Your task to perform on an android device: open app "Google Play services" (install if not already installed) Image 0: 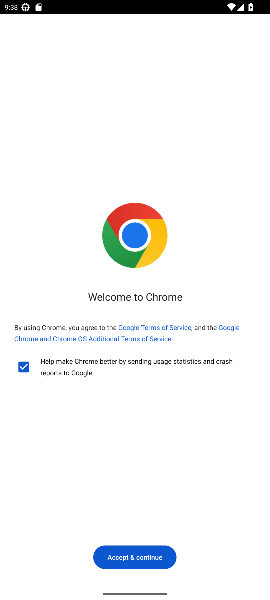
Step 0: press home button
Your task to perform on an android device: open app "Google Play services" (install if not already installed) Image 1: 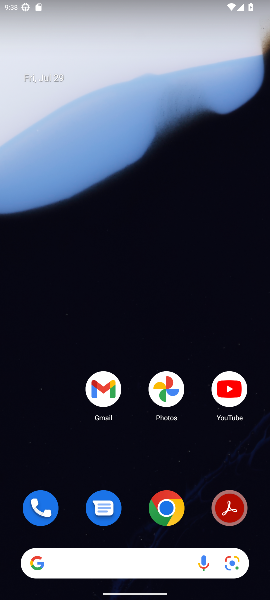
Step 1: drag from (61, 545) to (152, 142)
Your task to perform on an android device: open app "Google Play services" (install if not already installed) Image 2: 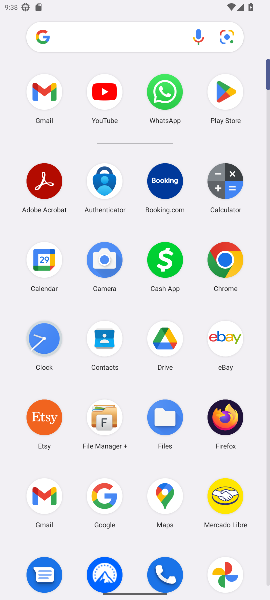
Step 2: click (225, 87)
Your task to perform on an android device: open app "Google Play services" (install if not already installed) Image 3: 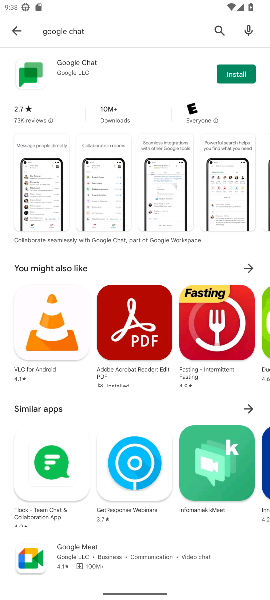
Step 3: click (218, 26)
Your task to perform on an android device: open app "Google Play services" (install if not already installed) Image 4: 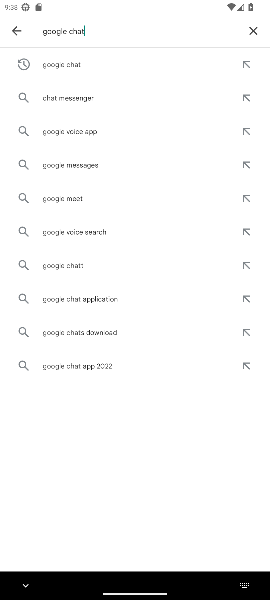
Step 4: click (258, 29)
Your task to perform on an android device: open app "Google Play services" (install if not already installed) Image 5: 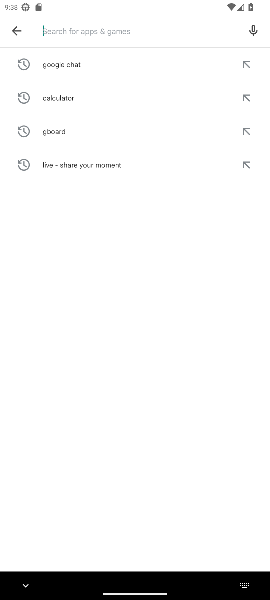
Step 5: type "Google play services"
Your task to perform on an android device: open app "Google Play services" (install if not already installed) Image 6: 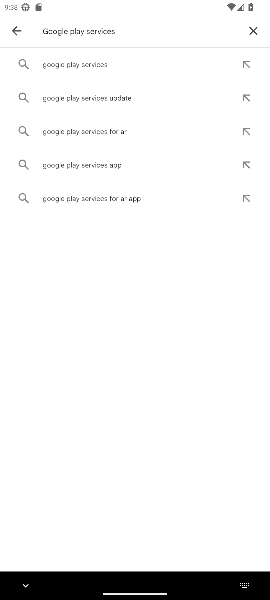
Step 6: click (93, 54)
Your task to perform on an android device: open app "Google Play services" (install if not already installed) Image 7: 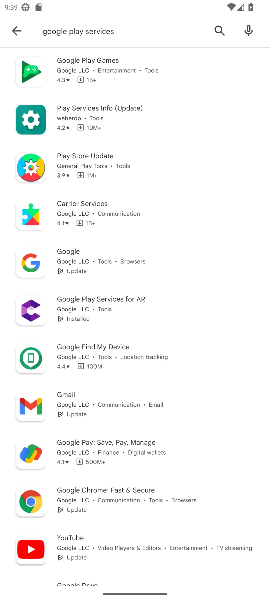
Step 7: click (89, 65)
Your task to perform on an android device: open app "Google Play services" (install if not already installed) Image 8: 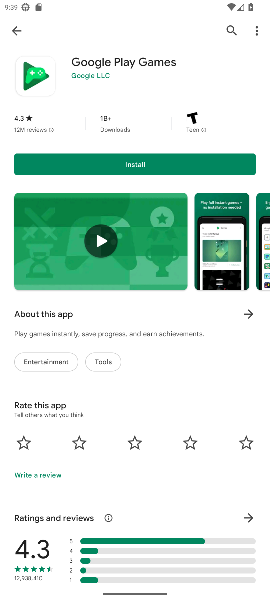
Step 8: task complete